Your task to perform on an android device: Go to eBay Image 0: 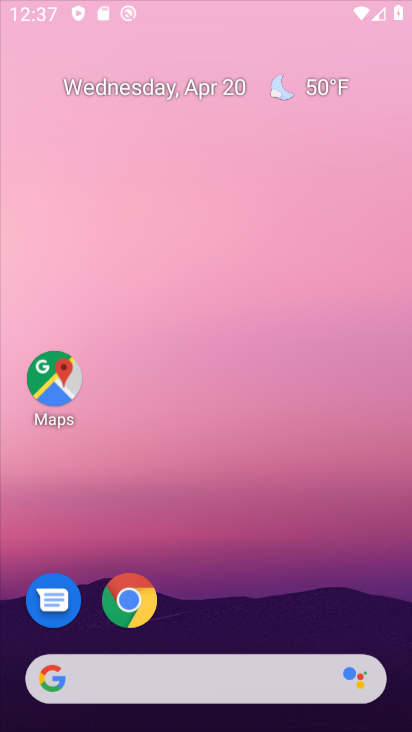
Step 0: click (211, 164)
Your task to perform on an android device: Go to eBay Image 1: 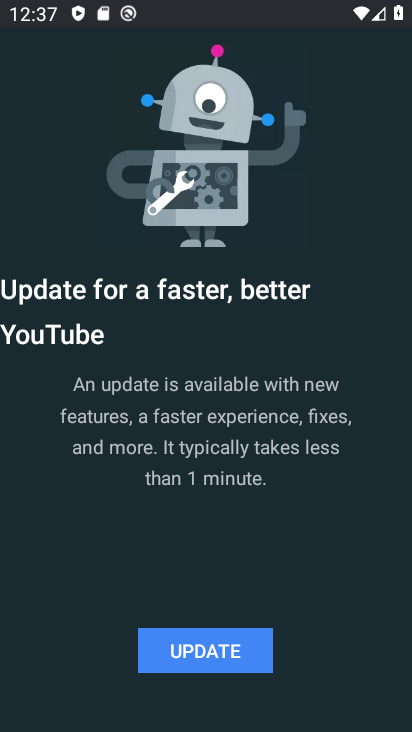
Step 1: press home button
Your task to perform on an android device: Go to eBay Image 2: 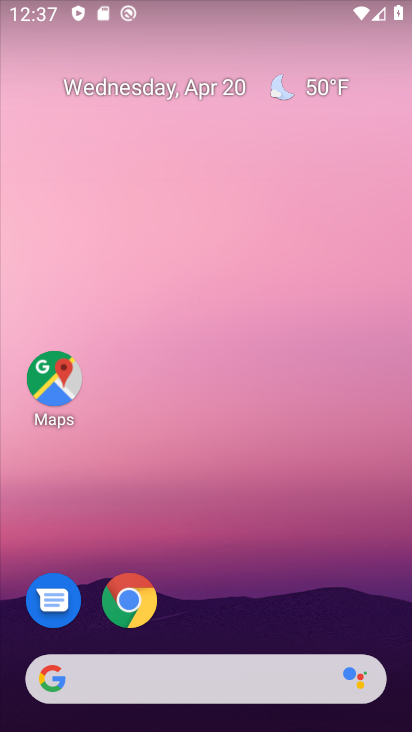
Step 2: click (143, 591)
Your task to perform on an android device: Go to eBay Image 3: 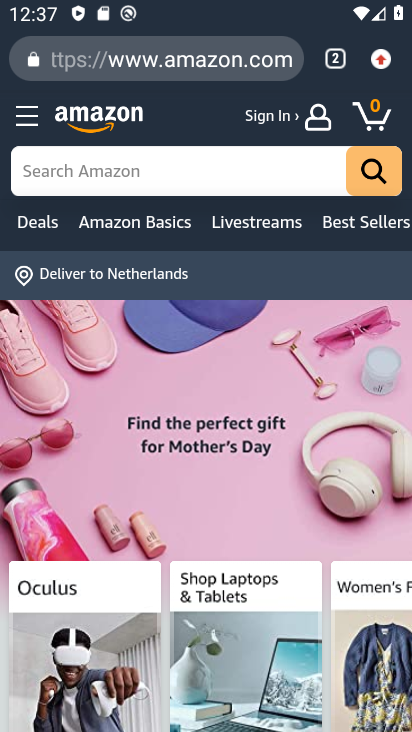
Step 3: click (337, 56)
Your task to perform on an android device: Go to eBay Image 4: 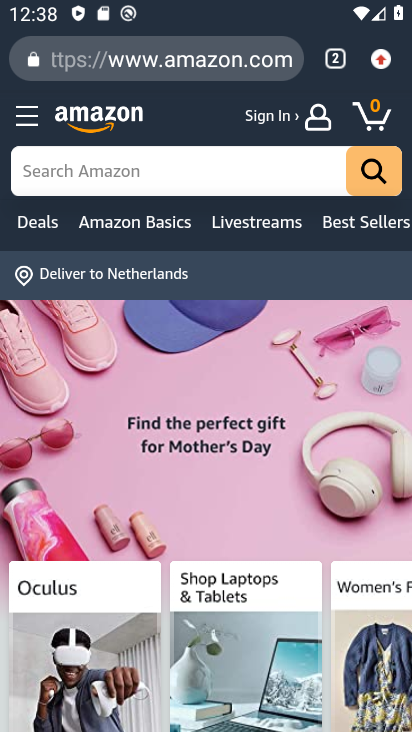
Step 4: click (334, 52)
Your task to perform on an android device: Go to eBay Image 5: 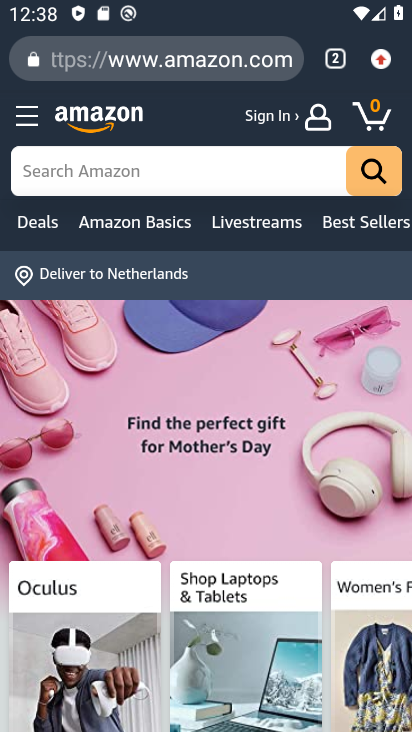
Step 5: click (265, 94)
Your task to perform on an android device: Go to eBay Image 6: 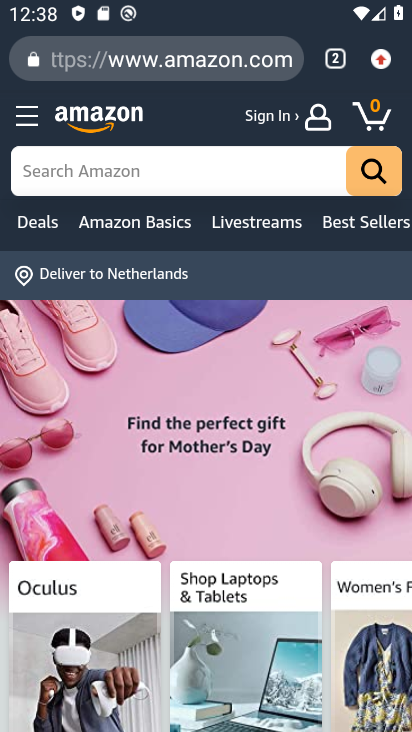
Step 6: click (340, 56)
Your task to perform on an android device: Go to eBay Image 7: 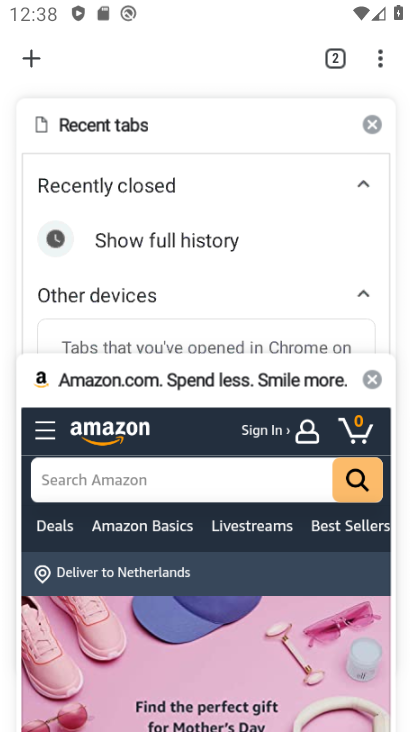
Step 7: click (35, 71)
Your task to perform on an android device: Go to eBay Image 8: 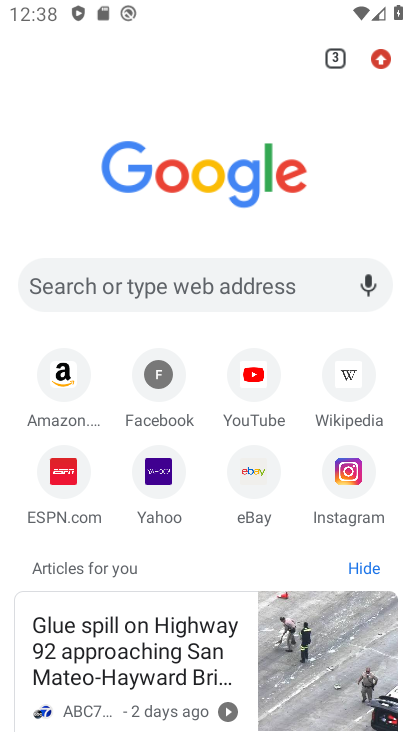
Step 8: click (186, 283)
Your task to perform on an android device: Go to eBay Image 9: 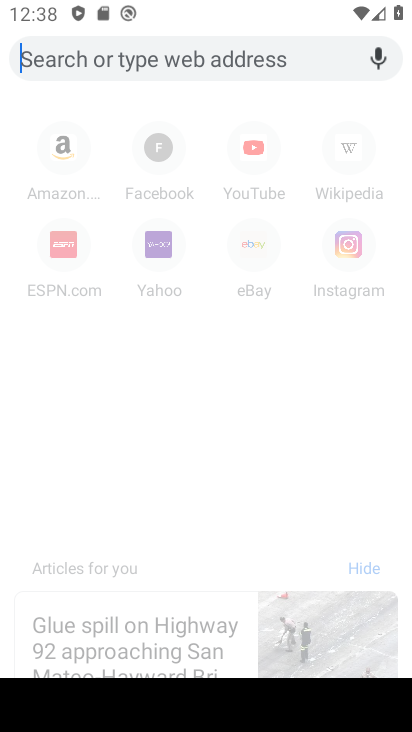
Step 9: type "ebay"
Your task to perform on an android device: Go to eBay Image 10: 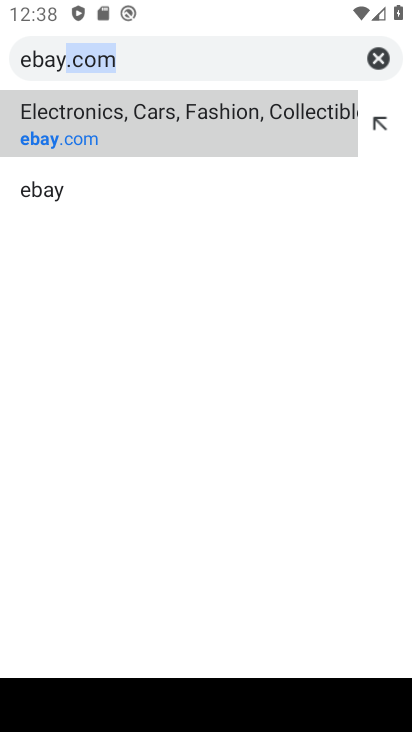
Step 10: click (112, 119)
Your task to perform on an android device: Go to eBay Image 11: 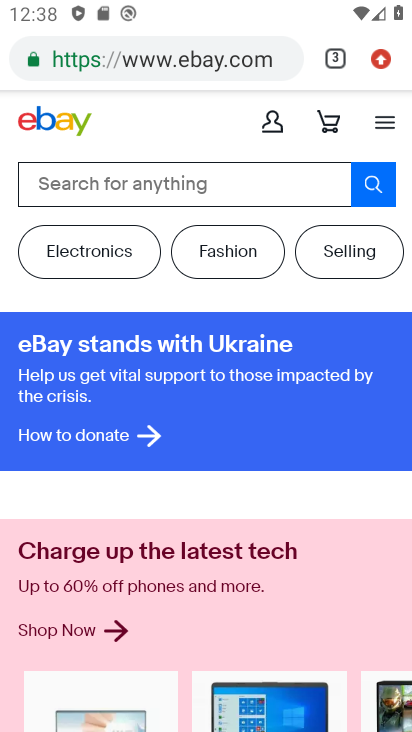
Step 11: task complete